Your task to perform on an android device: Add logitech g933 to the cart on bestbuy Image 0: 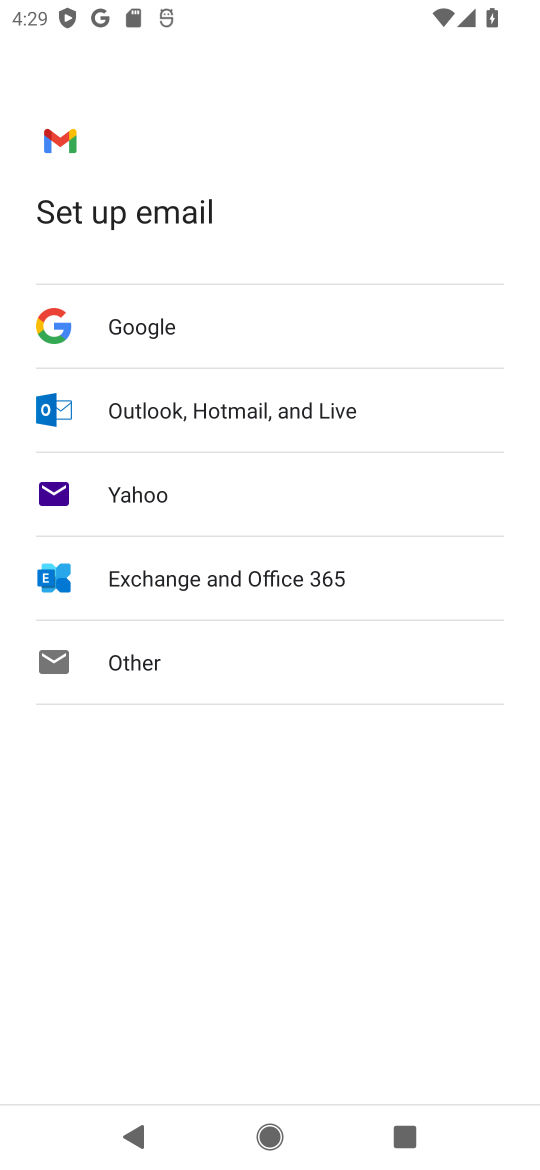
Step 0: press home button
Your task to perform on an android device: Add logitech g933 to the cart on bestbuy Image 1: 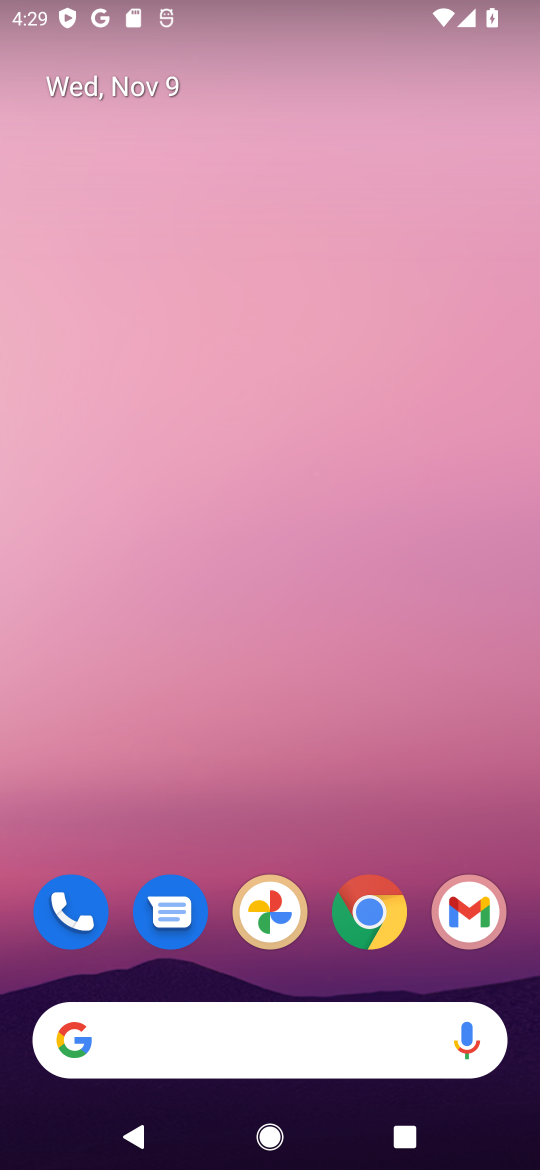
Step 1: click (370, 914)
Your task to perform on an android device: Add logitech g933 to the cart on bestbuy Image 2: 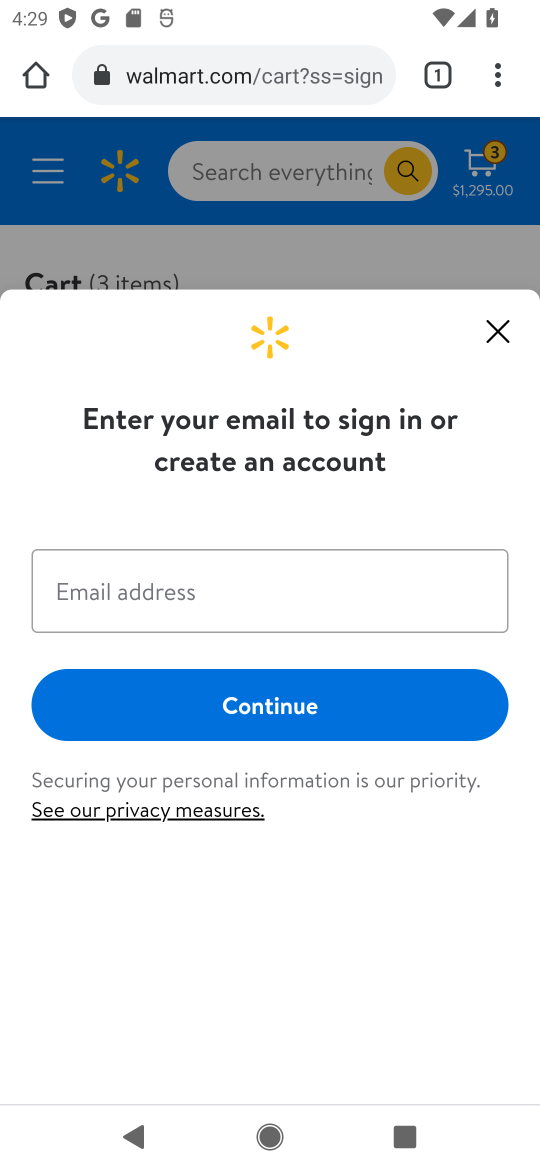
Step 2: click (253, 75)
Your task to perform on an android device: Add logitech g933 to the cart on bestbuy Image 3: 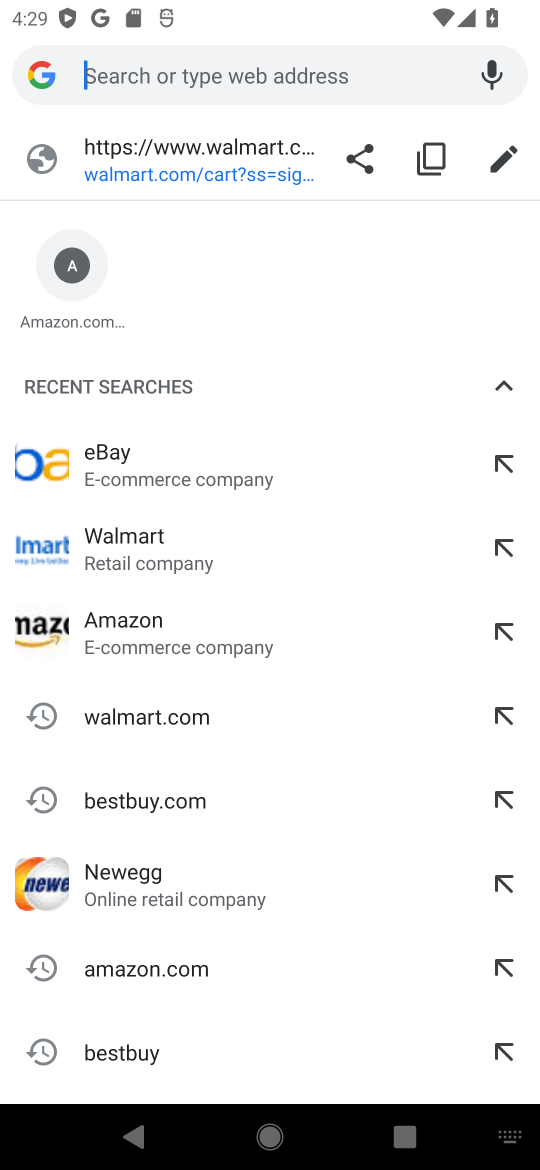
Step 3: type "bestbuy"
Your task to perform on an android device: Add logitech g933 to the cart on bestbuy Image 4: 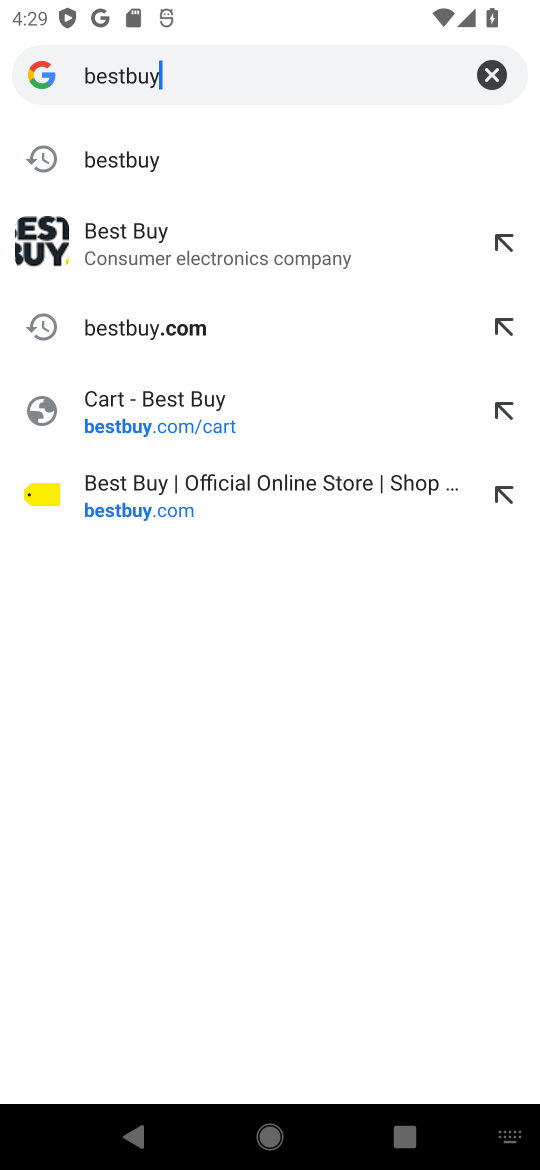
Step 4: click (112, 159)
Your task to perform on an android device: Add logitech g933 to the cart on bestbuy Image 5: 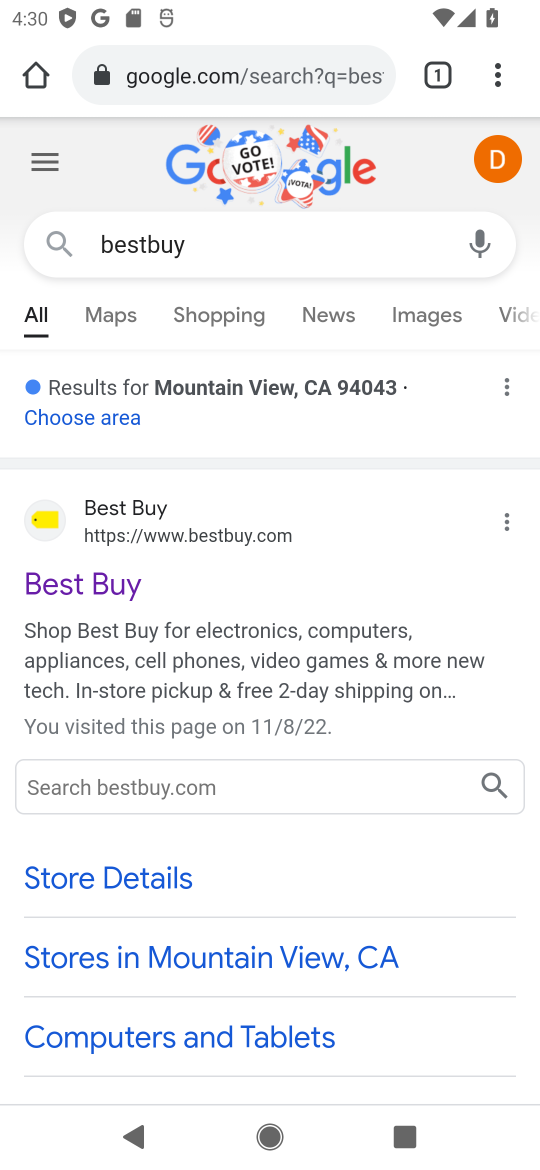
Step 5: click (169, 586)
Your task to perform on an android device: Add logitech g933 to the cart on bestbuy Image 6: 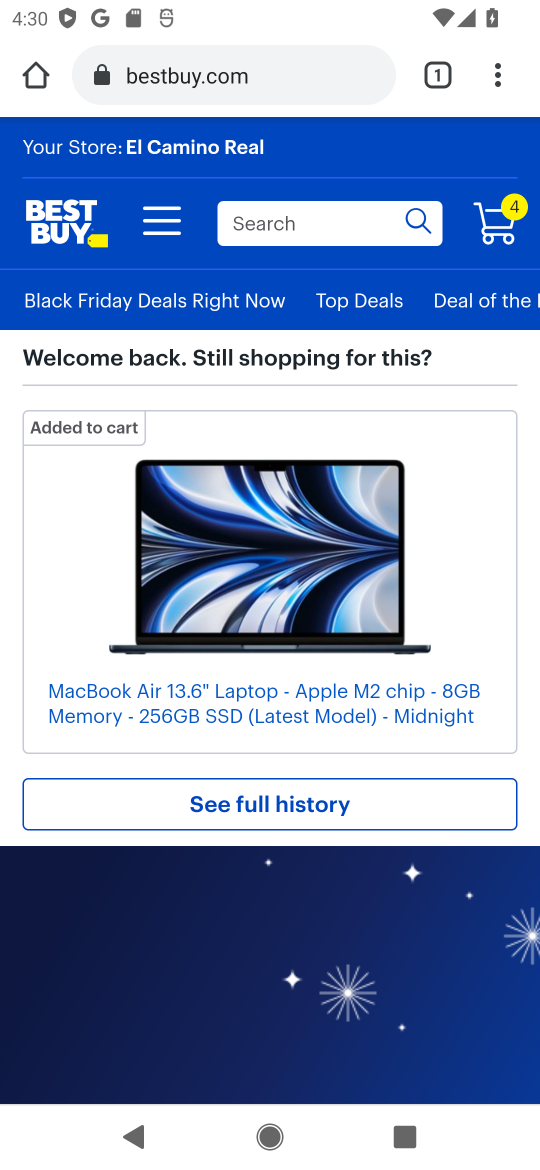
Step 6: click (308, 227)
Your task to perform on an android device: Add logitech g933 to the cart on bestbuy Image 7: 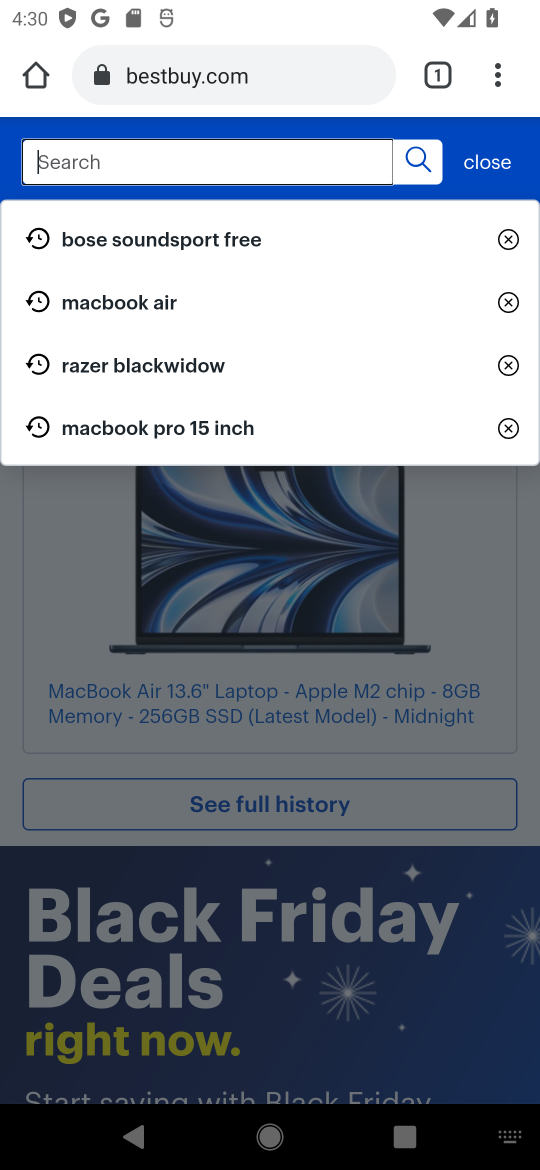
Step 7: type "logitech g933"
Your task to perform on an android device: Add logitech g933 to the cart on bestbuy Image 8: 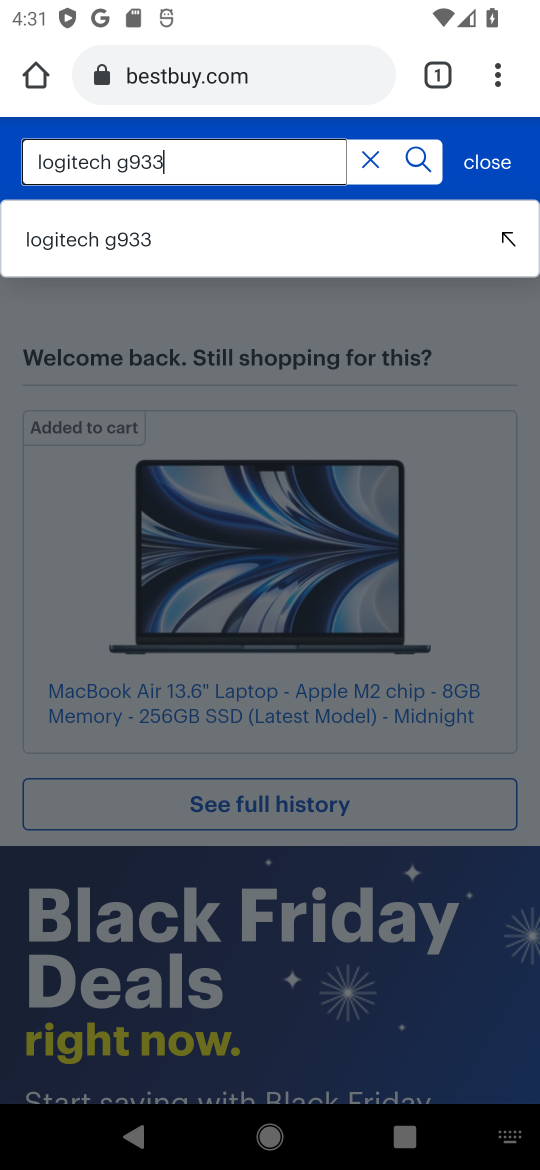
Step 8: click (88, 249)
Your task to perform on an android device: Add logitech g933 to the cart on bestbuy Image 9: 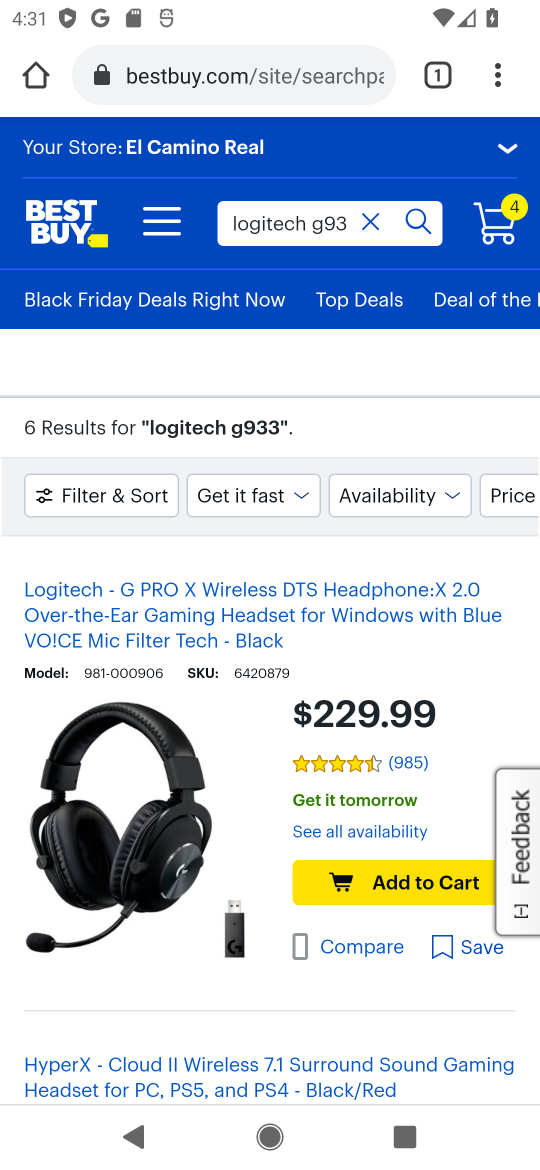
Step 9: click (413, 889)
Your task to perform on an android device: Add logitech g933 to the cart on bestbuy Image 10: 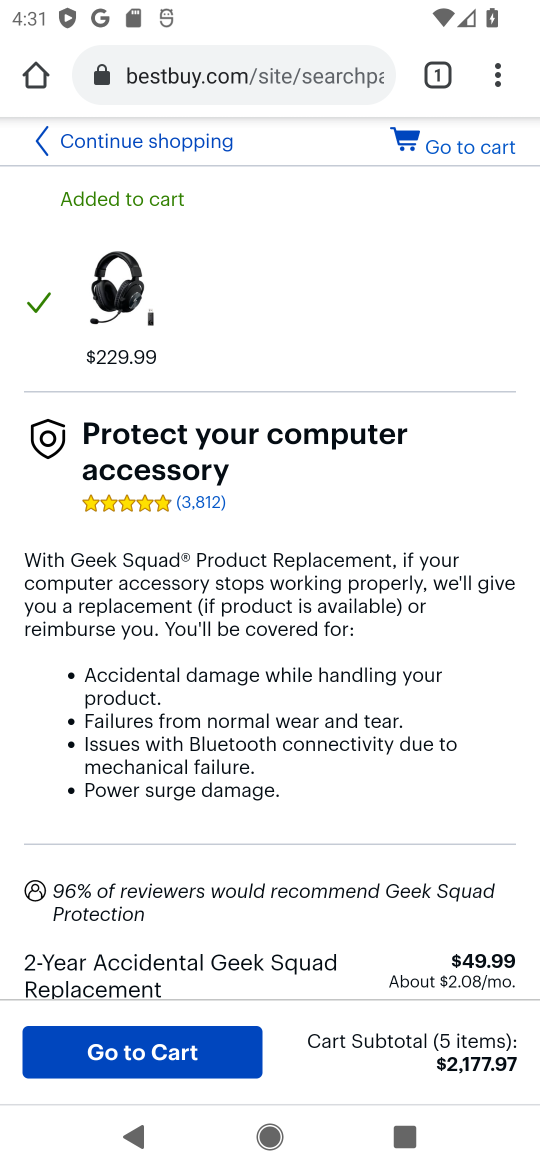
Step 10: click (183, 1048)
Your task to perform on an android device: Add logitech g933 to the cart on bestbuy Image 11: 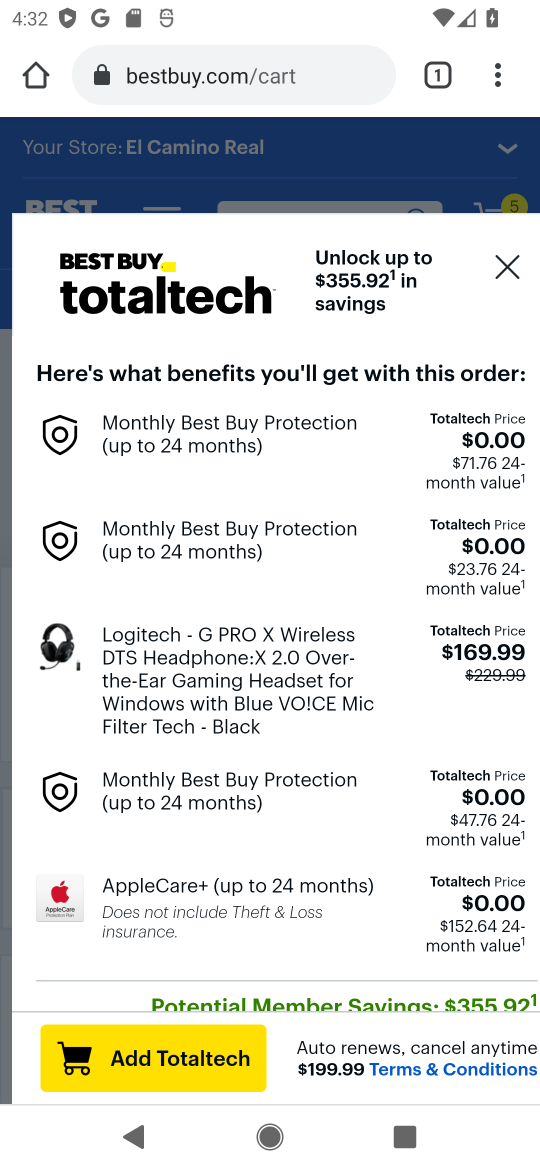
Step 11: click (505, 259)
Your task to perform on an android device: Add logitech g933 to the cart on bestbuy Image 12: 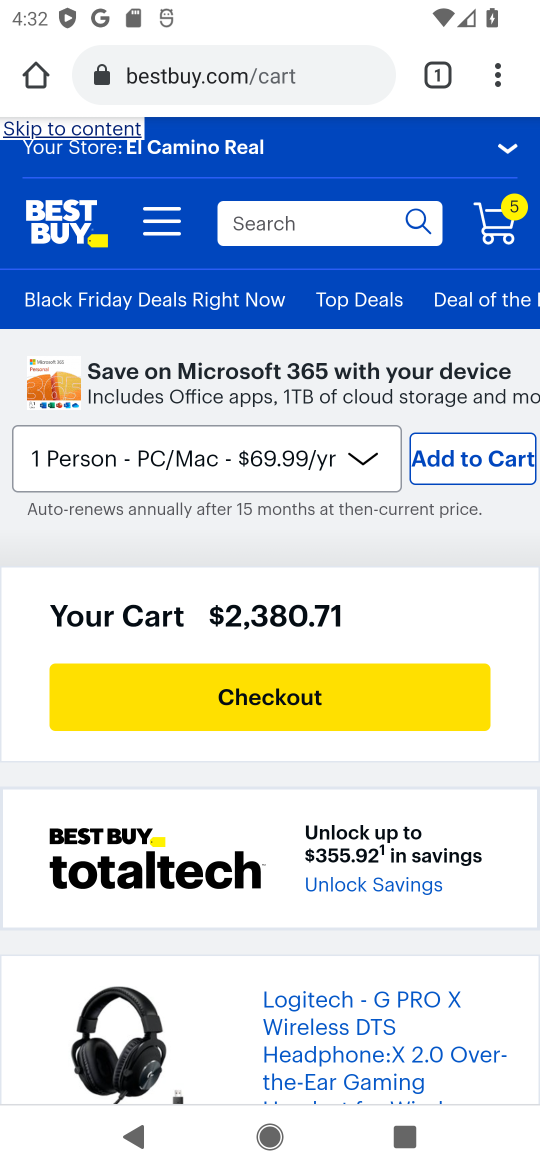
Step 12: task complete